Your task to perform on an android device: Show me recent news Image 0: 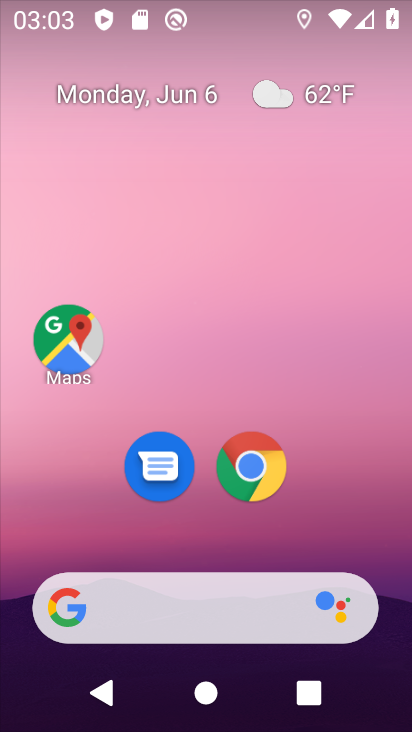
Step 0: drag from (335, 497) to (328, 146)
Your task to perform on an android device: Show me recent news Image 1: 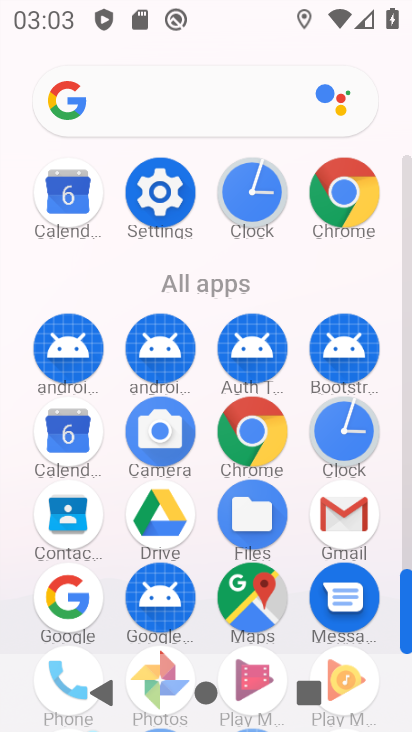
Step 1: click (347, 196)
Your task to perform on an android device: Show me recent news Image 2: 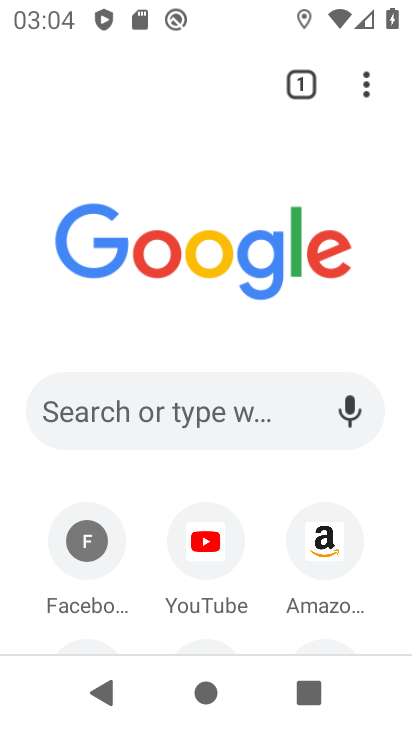
Step 2: click (223, 418)
Your task to perform on an android device: Show me recent news Image 3: 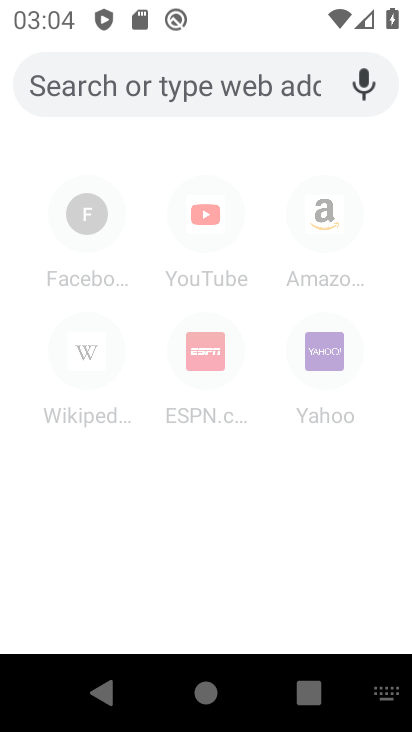
Step 3: type "news"
Your task to perform on an android device: Show me recent news Image 4: 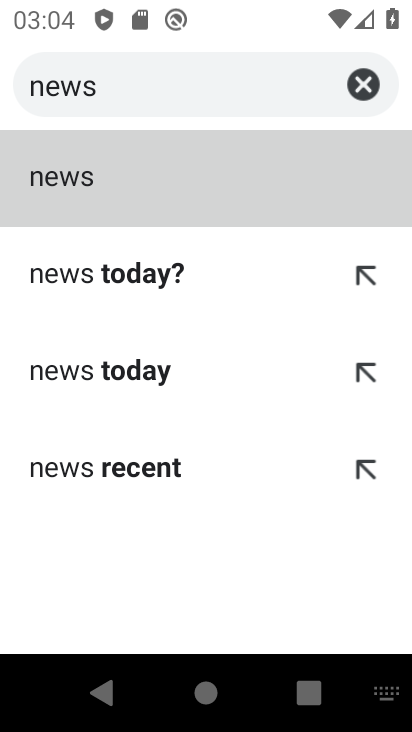
Step 4: click (65, 187)
Your task to perform on an android device: Show me recent news Image 5: 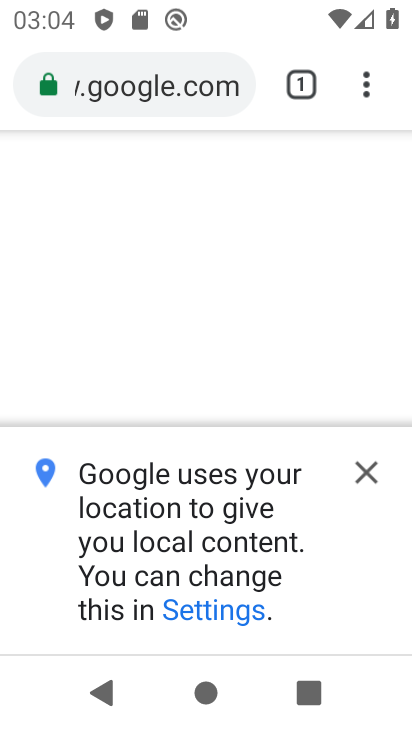
Step 5: click (372, 466)
Your task to perform on an android device: Show me recent news Image 6: 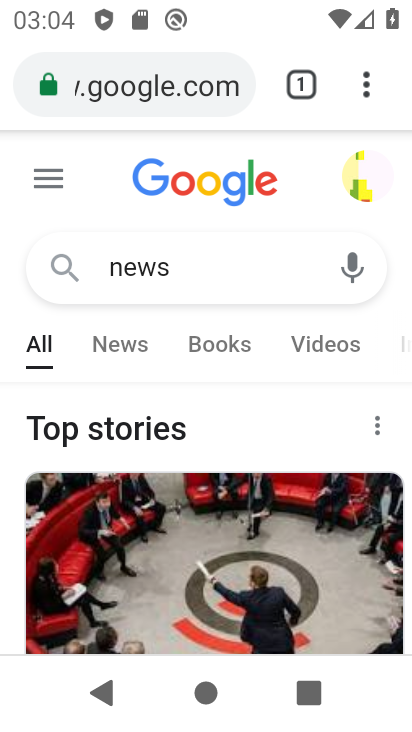
Step 6: click (118, 356)
Your task to perform on an android device: Show me recent news Image 7: 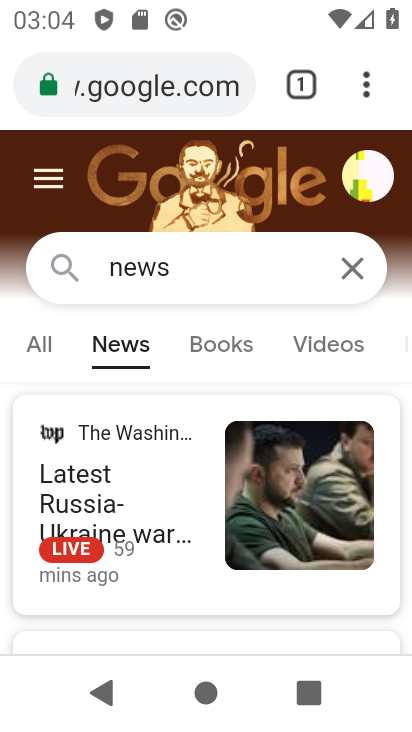
Step 7: task complete